Your task to perform on an android device: turn off airplane mode Image 0: 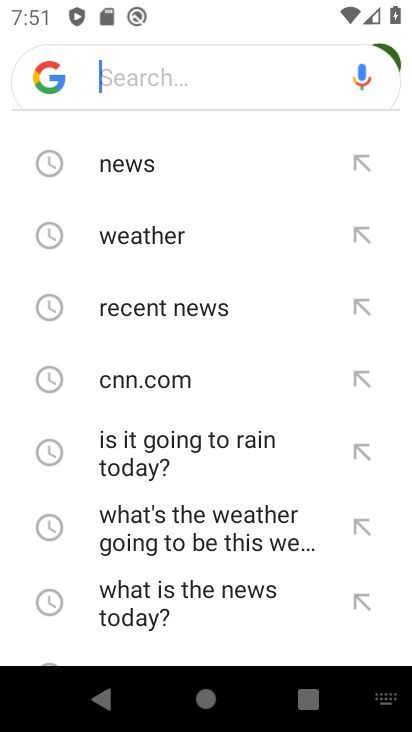
Step 0: press home button
Your task to perform on an android device: turn off airplane mode Image 1: 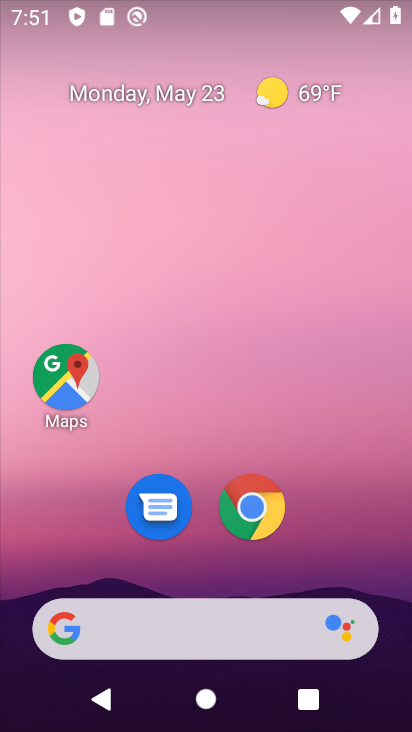
Step 1: drag from (325, 529) to (319, 12)
Your task to perform on an android device: turn off airplane mode Image 2: 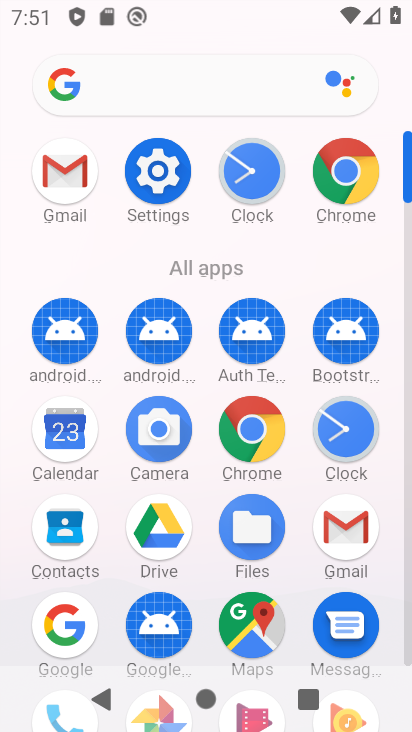
Step 2: click (156, 183)
Your task to perform on an android device: turn off airplane mode Image 3: 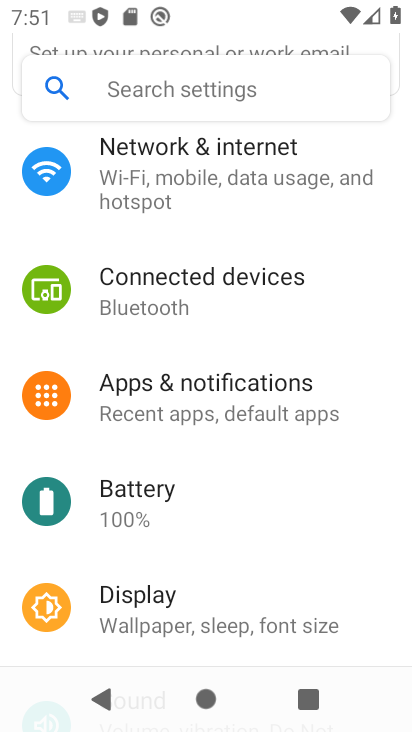
Step 3: click (156, 183)
Your task to perform on an android device: turn off airplane mode Image 4: 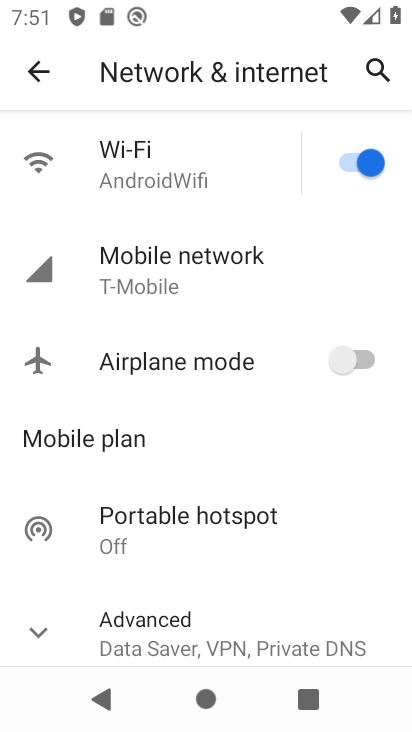
Step 4: task complete